Your task to perform on an android device: Go to sound settings Image 0: 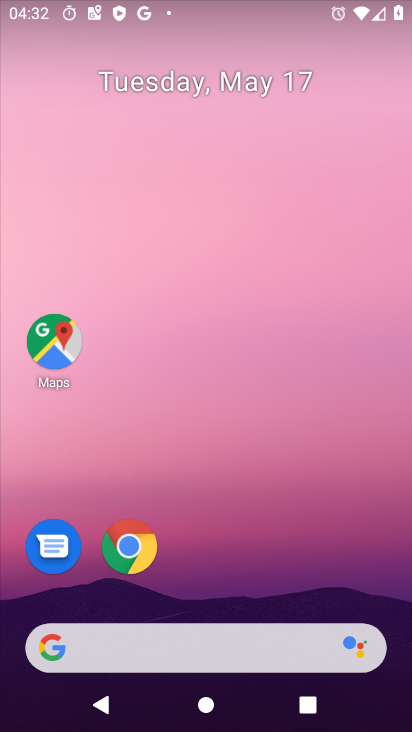
Step 0: click (356, 274)
Your task to perform on an android device: Go to sound settings Image 1: 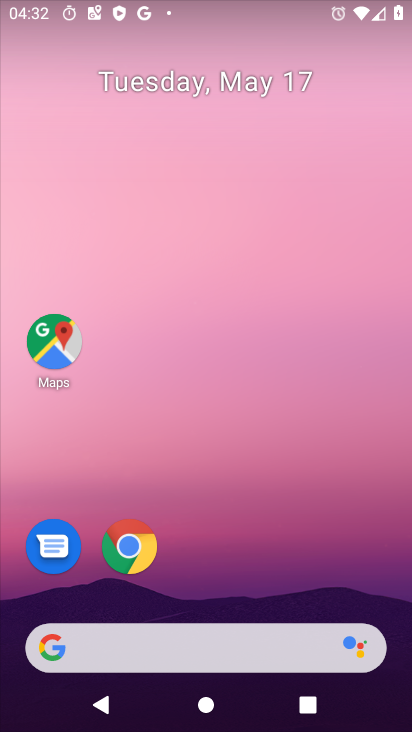
Step 1: drag from (364, 463) to (350, 224)
Your task to perform on an android device: Go to sound settings Image 2: 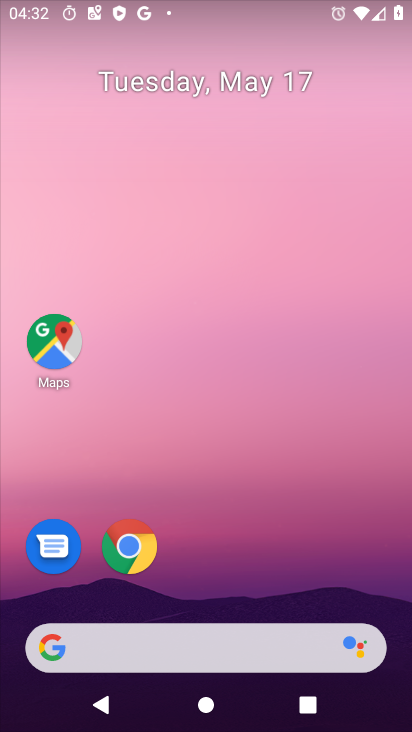
Step 2: drag from (400, 648) to (340, 228)
Your task to perform on an android device: Go to sound settings Image 3: 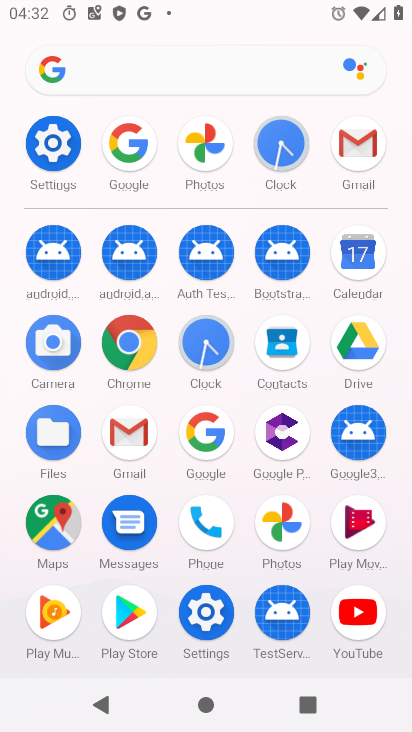
Step 3: click (207, 617)
Your task to perform on an android device: Go to sound settings Image 4: 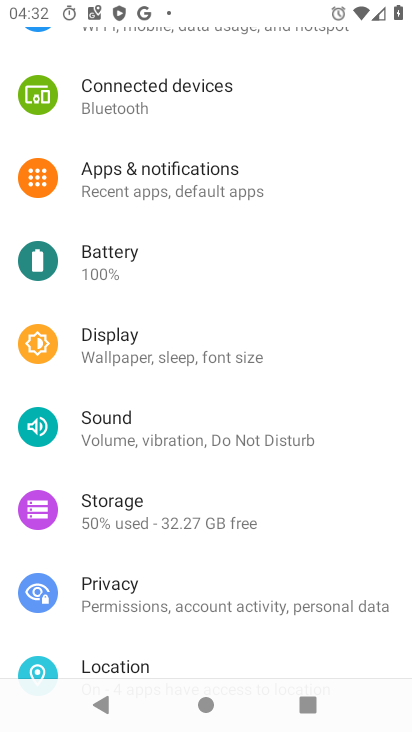
Step 4: click (103, 426)
Your task to perform on an android device: Go to sound settings Image 5: 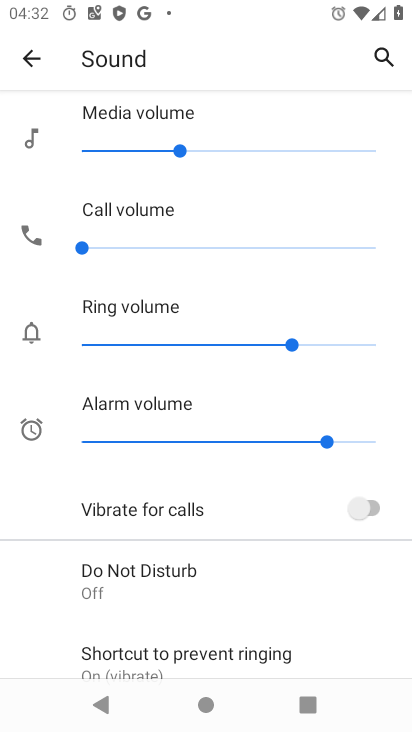
Step 5: task complete